Your task to perform on an android device: Go to settings Image 0: 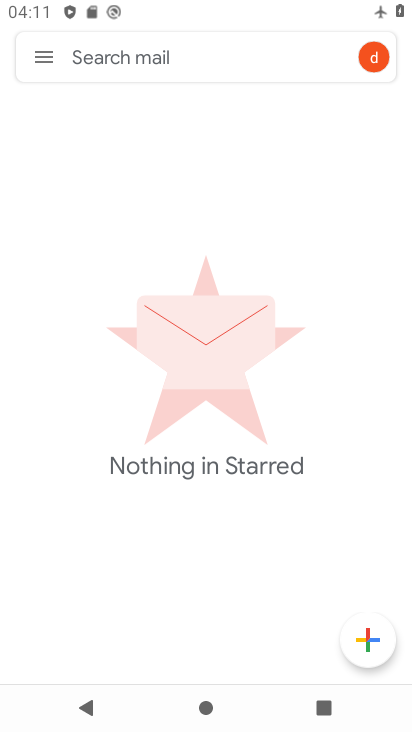
Step 0: press home button
Your task to perform on an android device: Go to settings Image 1: 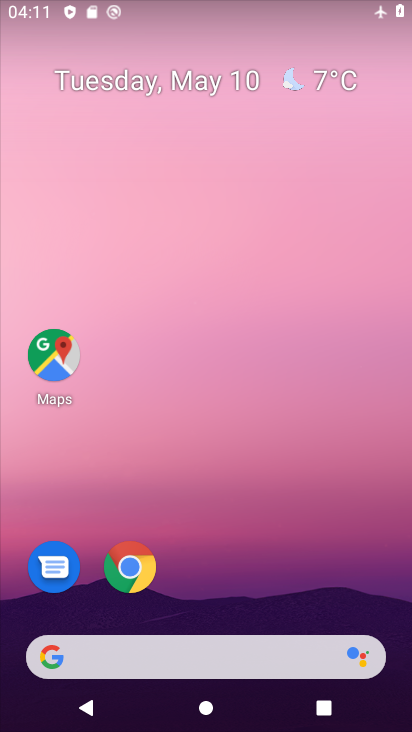
Step 1: drag from (189, 486) to (184, 80)
Your task to perform on an android device: Go to settings Image 2: 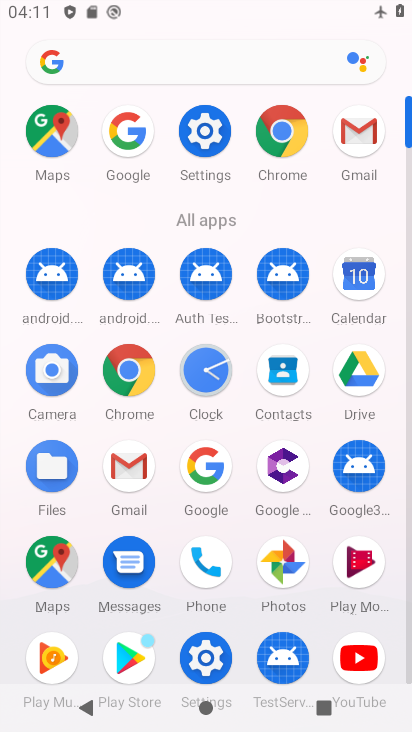
Step 2: click (204, 130)
Your task to perform on an android device: Go to settings Image 3: 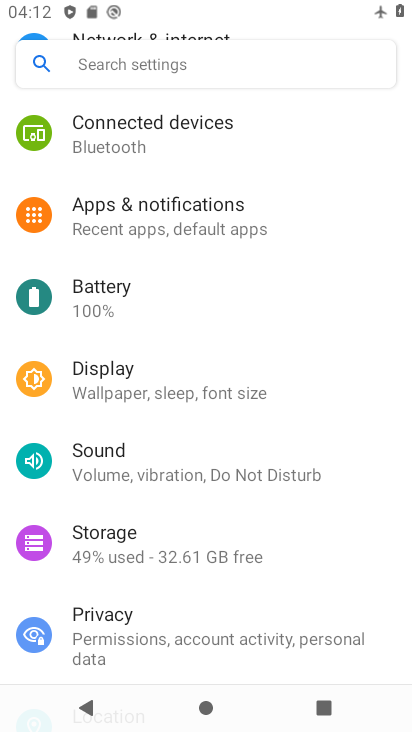
Step 3: task complete